Your task to perform on an android device: Search for 3d printed chess sets on Etsy. Image 0: 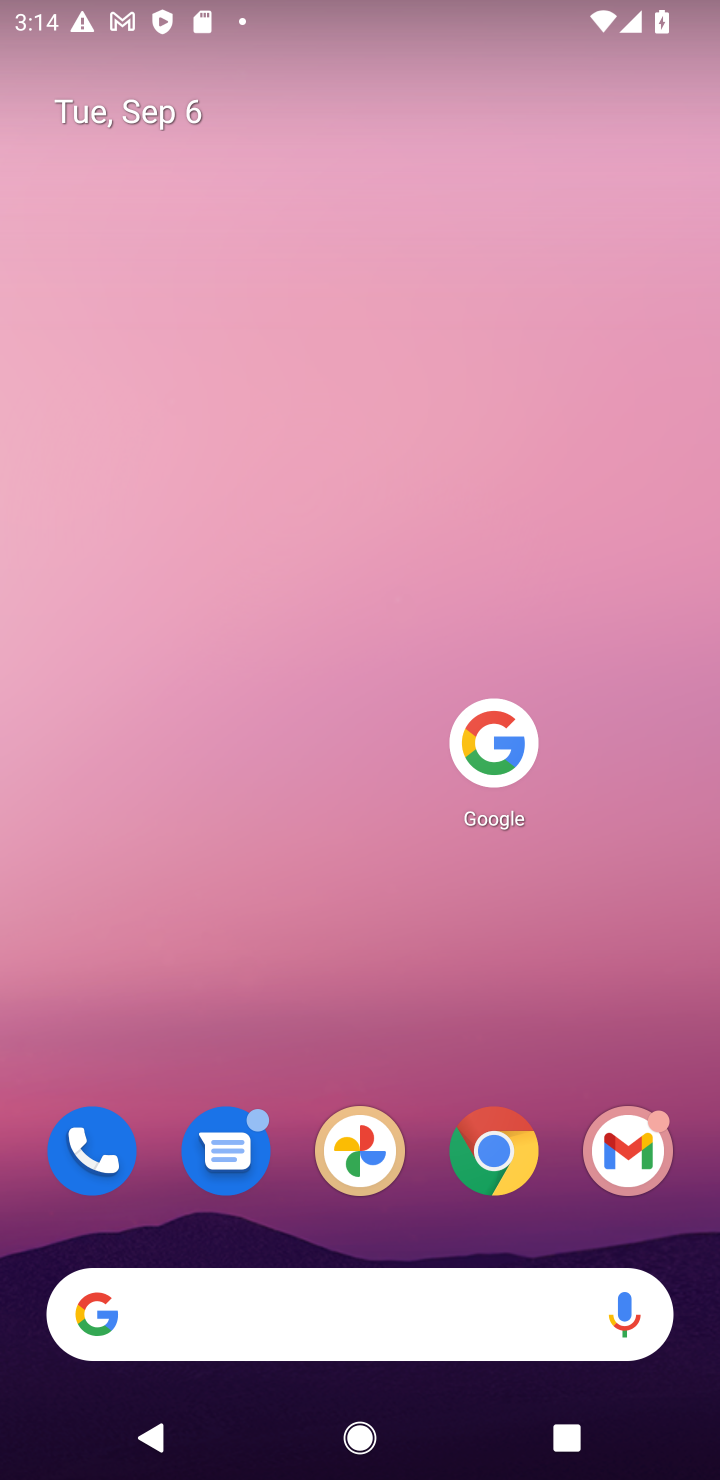
Step 0: click (491, 727)
Your task to perform on an android device: Search for 3d printed chess sets on Etsy. Image 1: 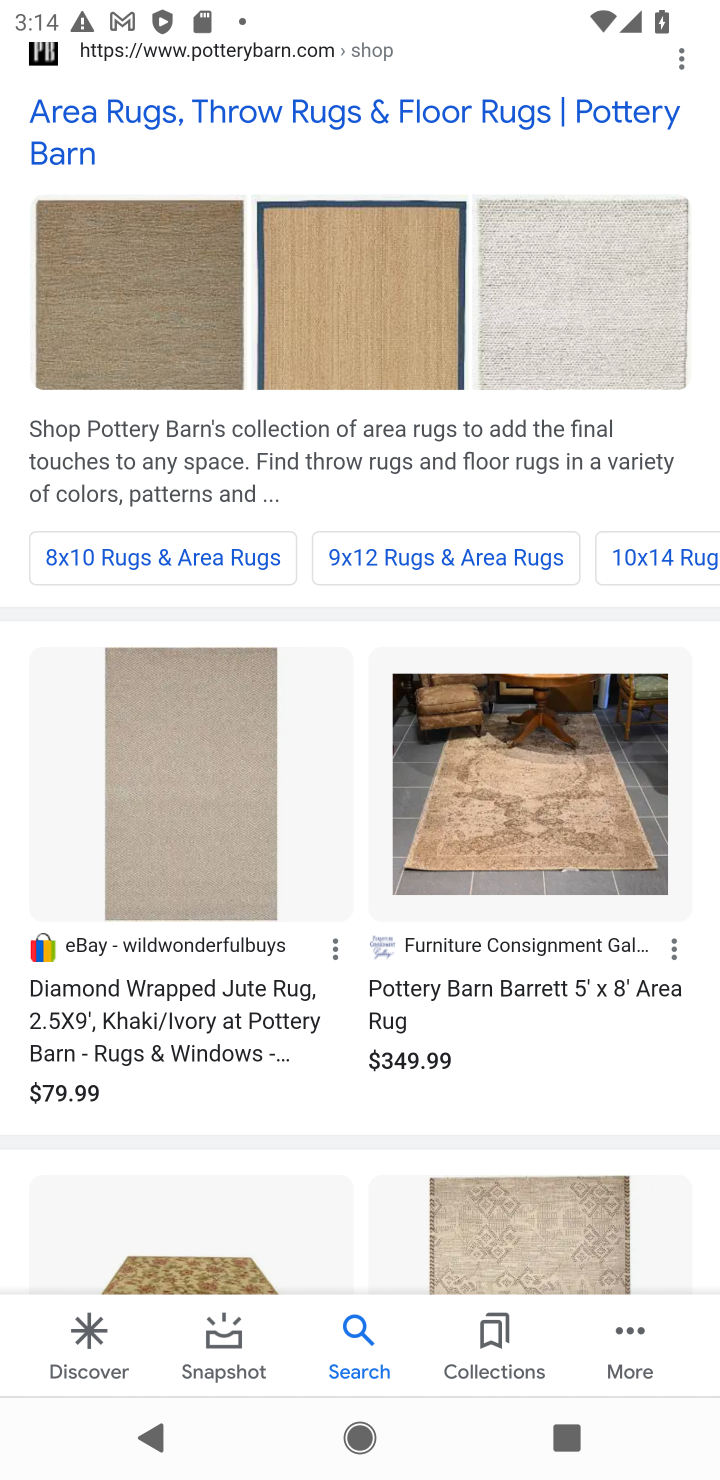
Step 1: drag from (414, 382) to (387, 1108)
Your task to perform on an android device: Search for 3d printed chess sets on Etsy. Image 2: 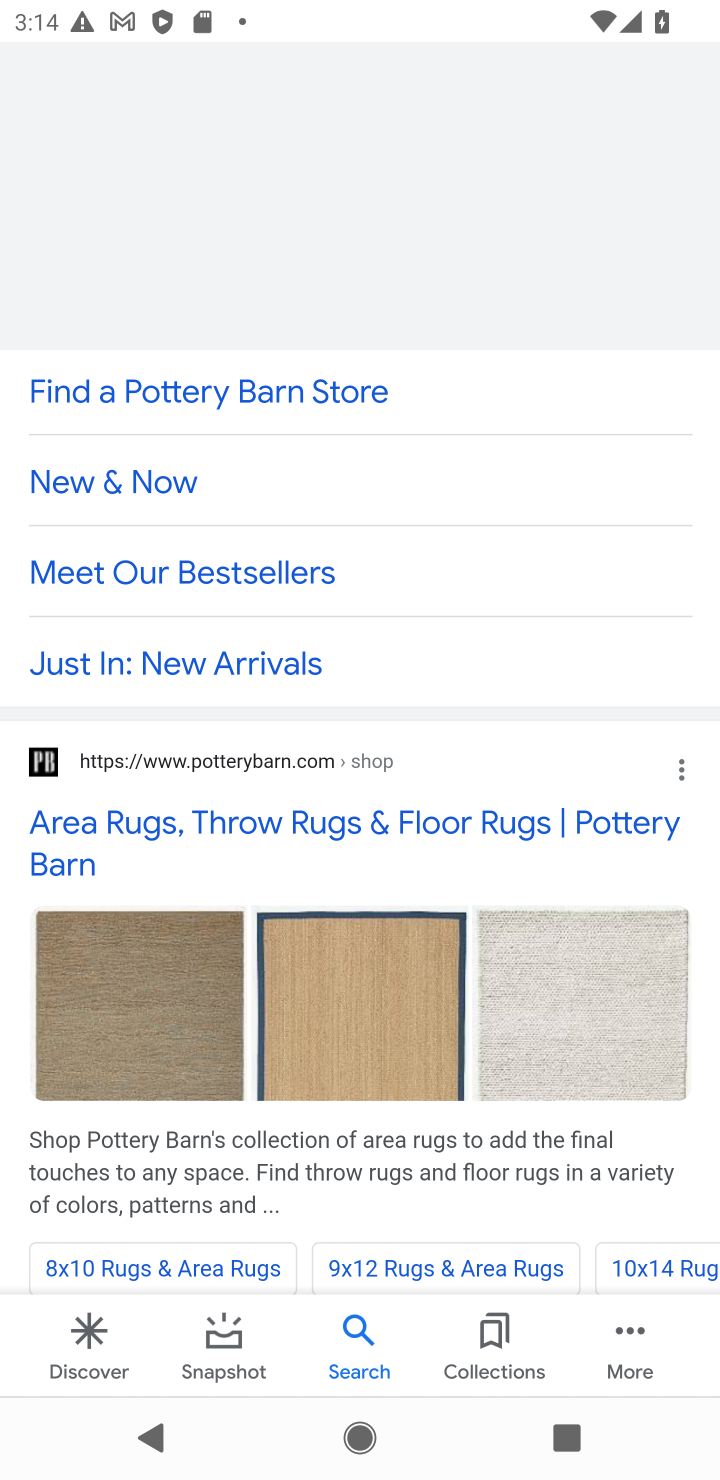
Step 2: drag from (389, 89) to (302, 1185)
Your task to perform on an android device: Search for 3d printed chess sets on Etsy. Image 3: 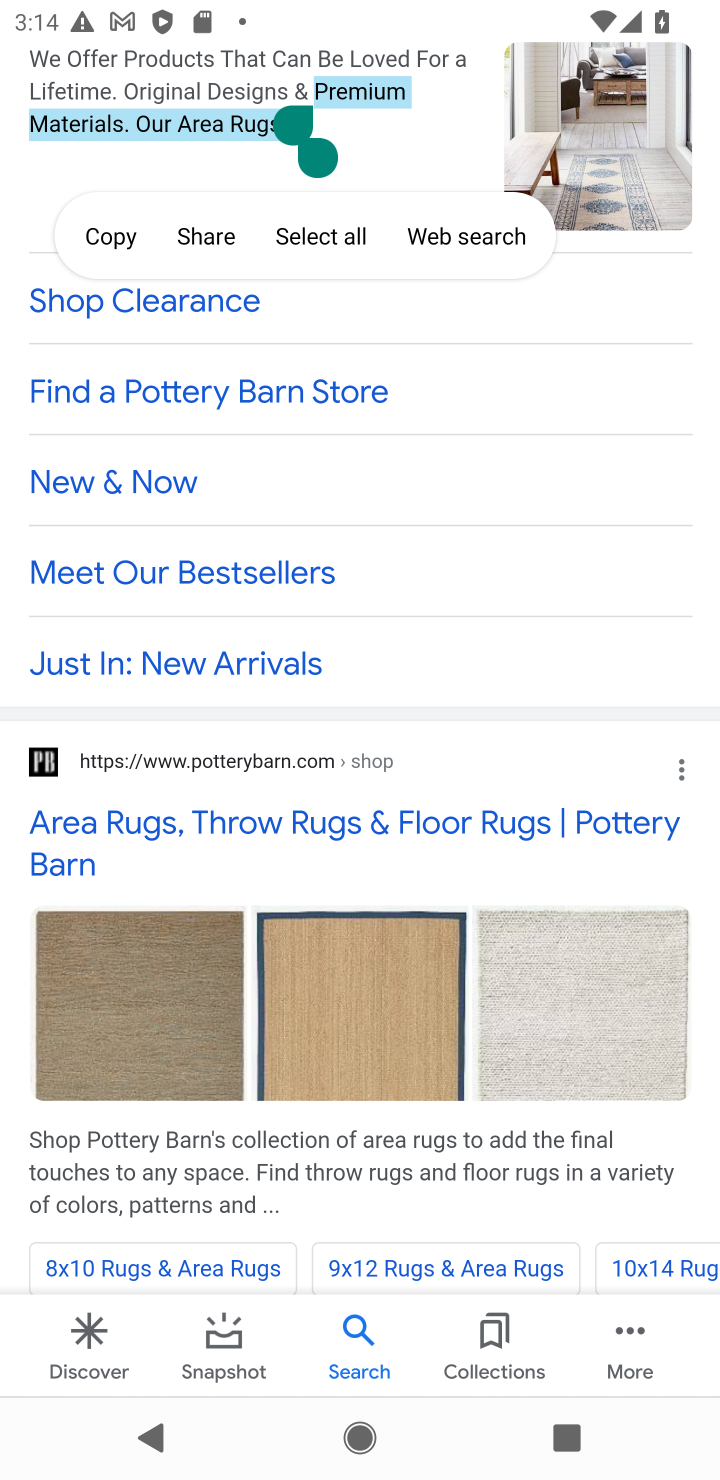
Step 3: click (644, 329)
Your task to perform on an android device: Search for 3d printed chess sets on Etsy. Image 4: 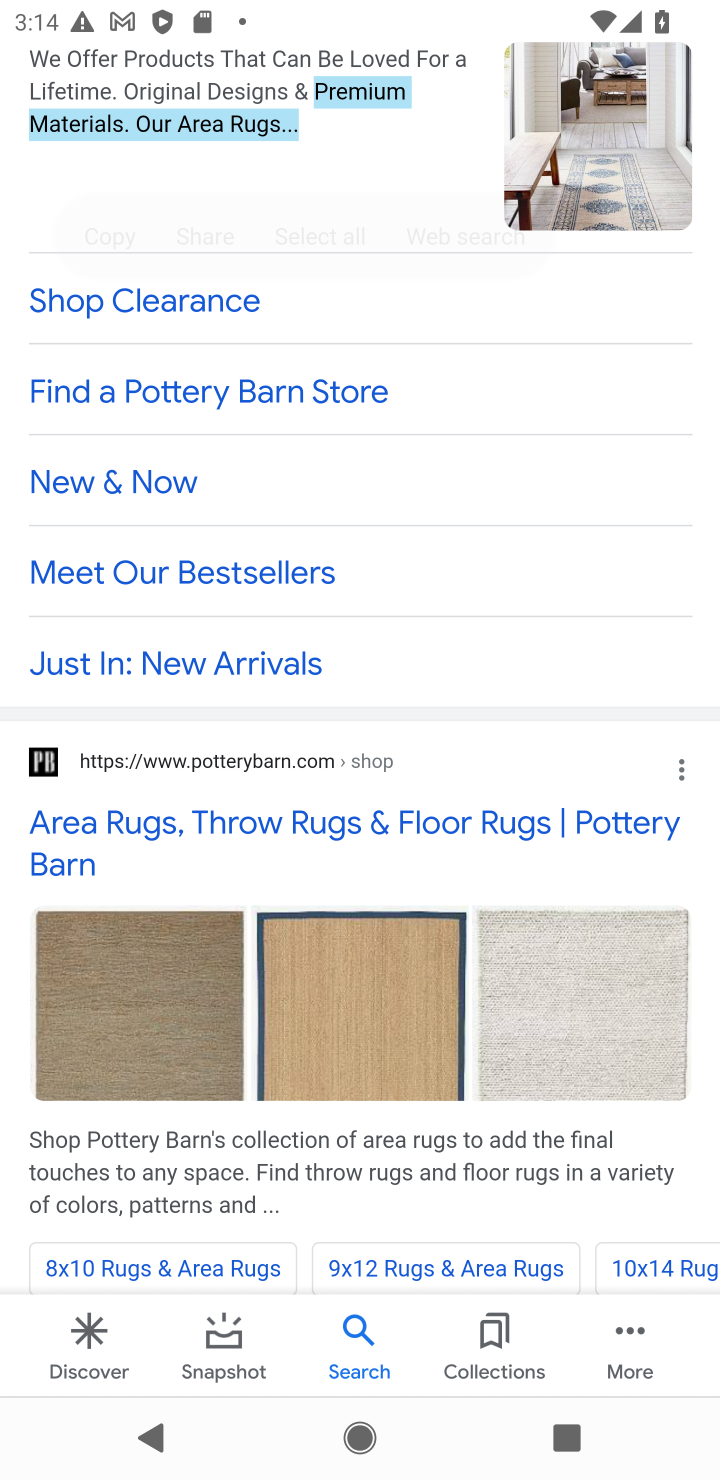
Step 4: drag from (359, 262) to (347, 1414)
Your task to perform on an android device: Search for 3d printed chess sets on Etsy. Image 5: 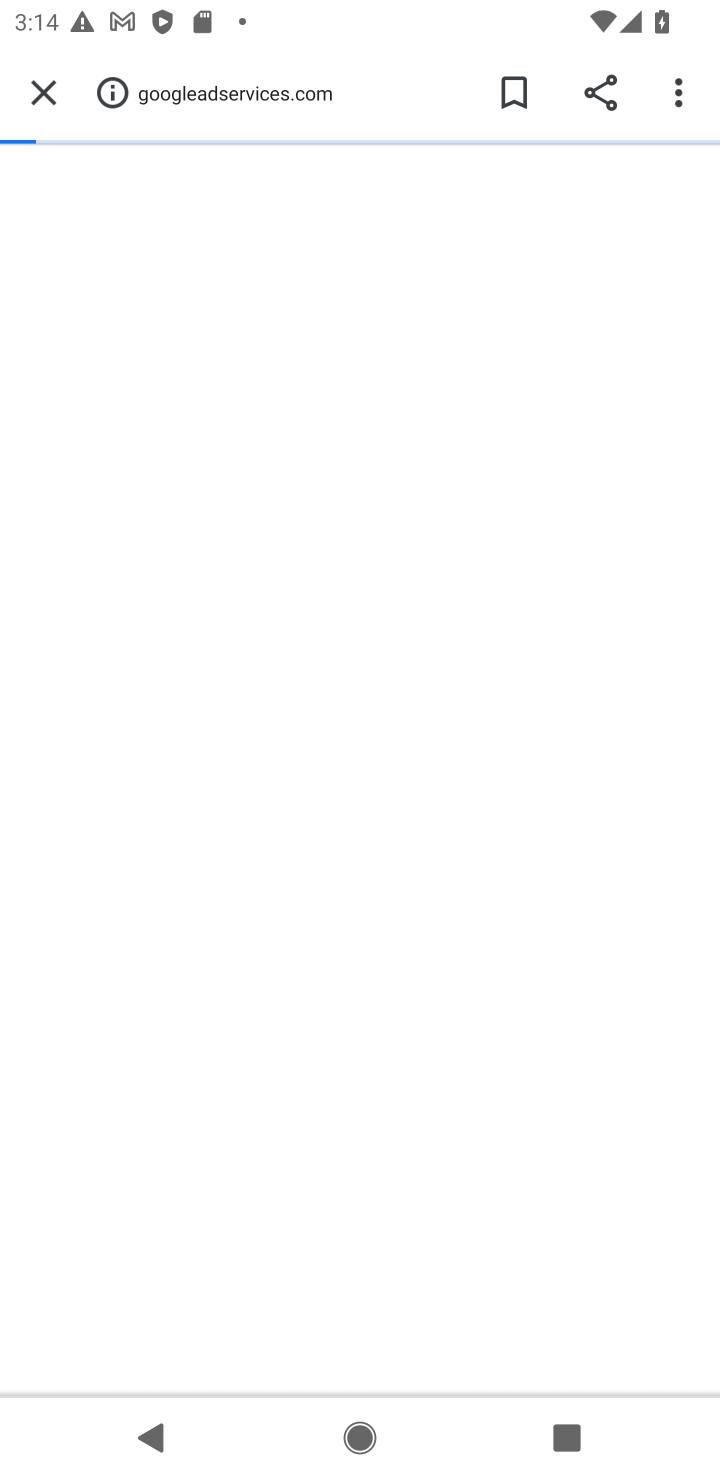
Step 5: click (39, 86)
Your task to perform on an android device: Search for 3d printed chess sets on Etsy. Image 6: 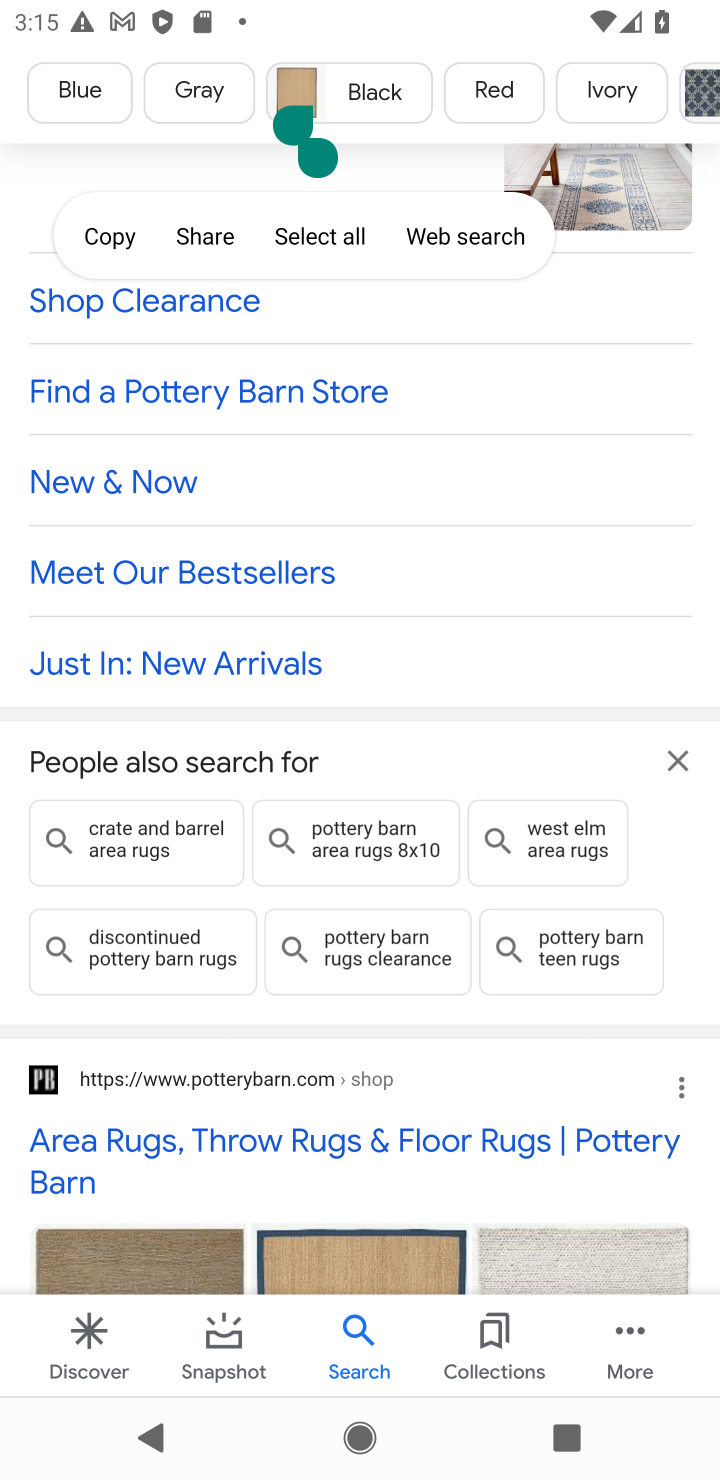
Step 6: drag from (506, 346) to (337, 1354)
Your task to perform on an android device: Search for 3d printed chess sets on Etsy. Image 7: 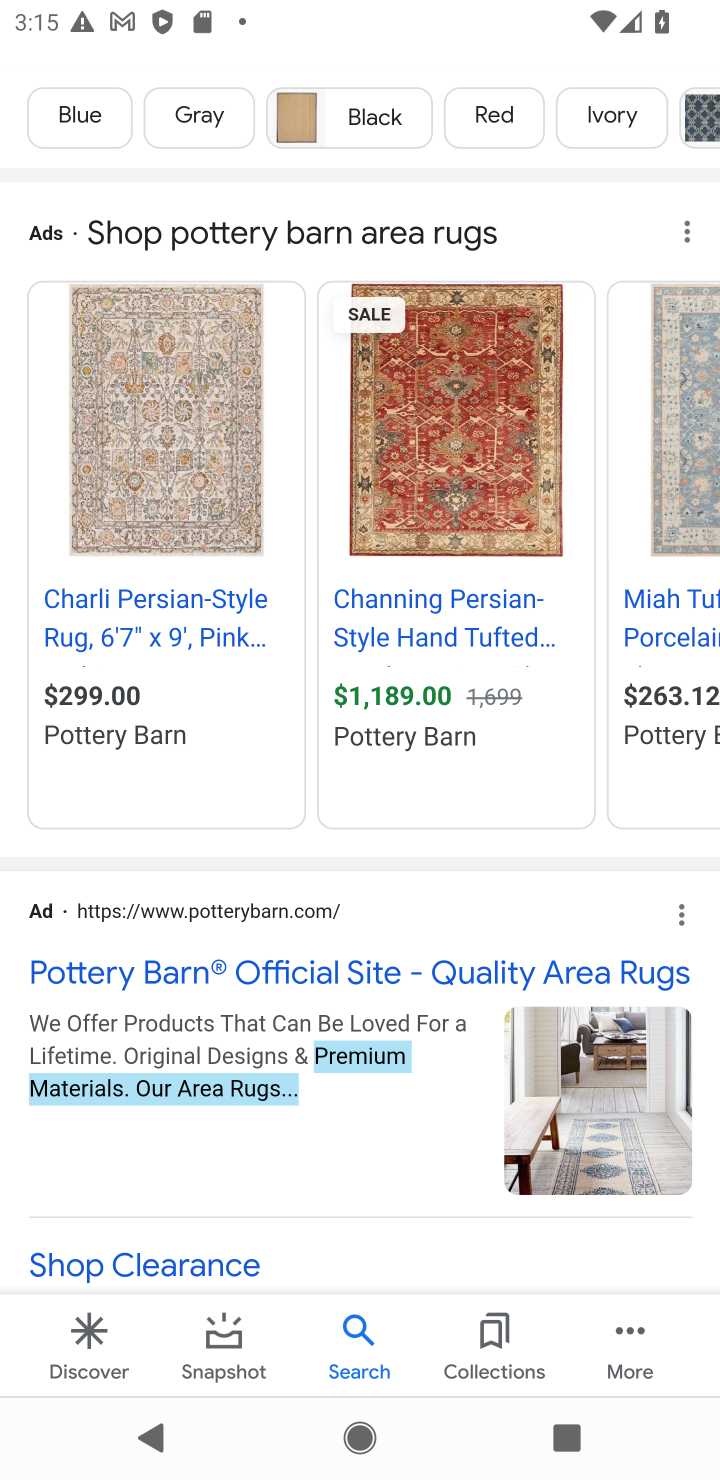
Step 7: click (503, 1300)
Your task to perform on an android device: Search for 3d printed chess sets on Etsy. Image 8: 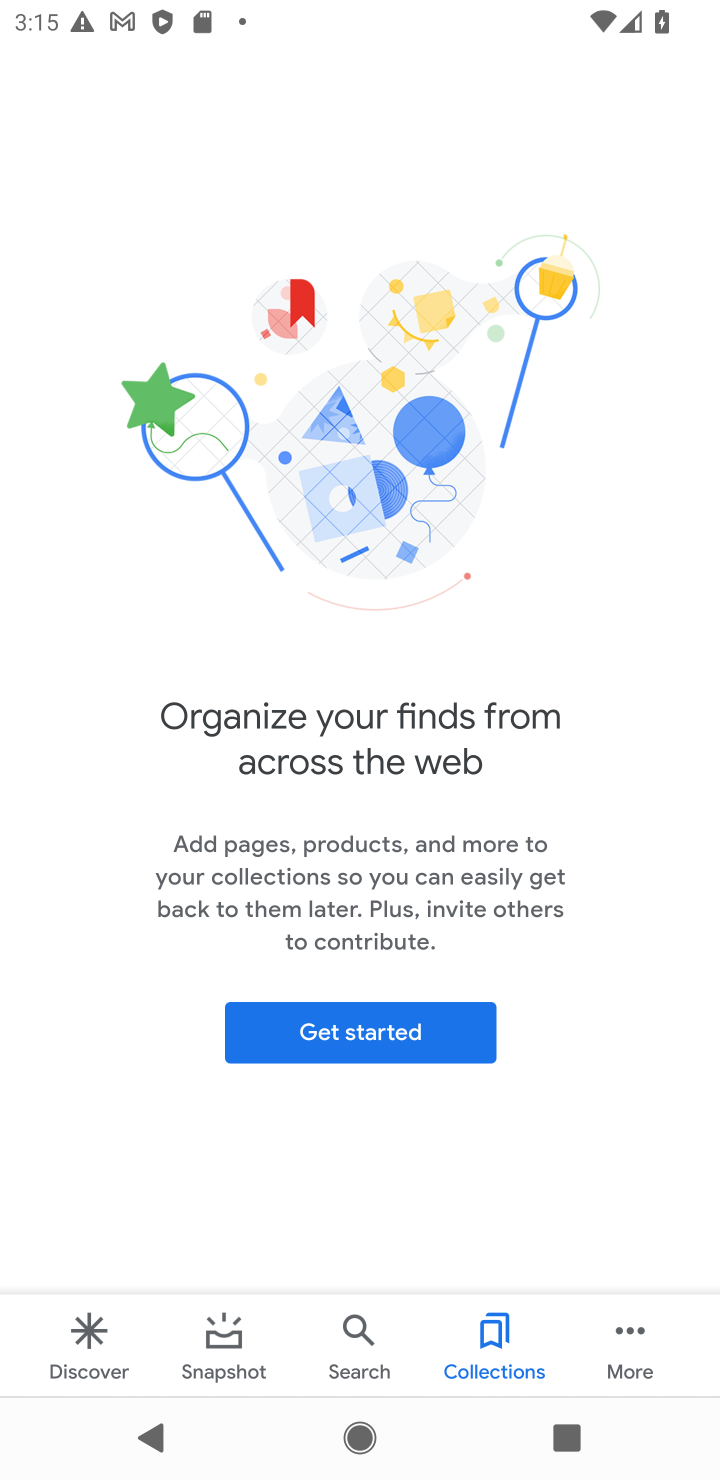
Step 8: press back button
Your task to perform on an android device: Search for 3d printed chess sets on Etsy. Image 9: 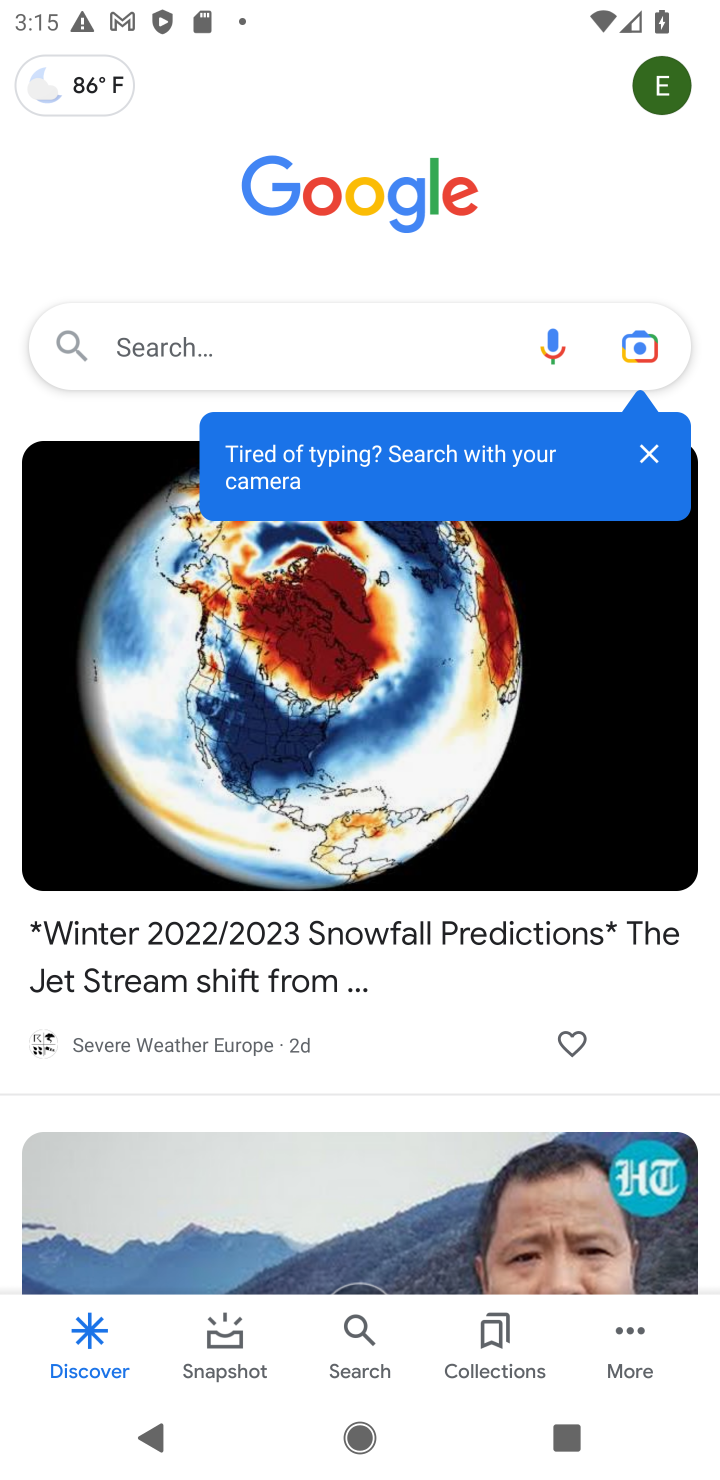
Step 9: click (223, 341)
Your task to perform on an android device: Search for 3d printed chess sets on Etsy. Image 10: 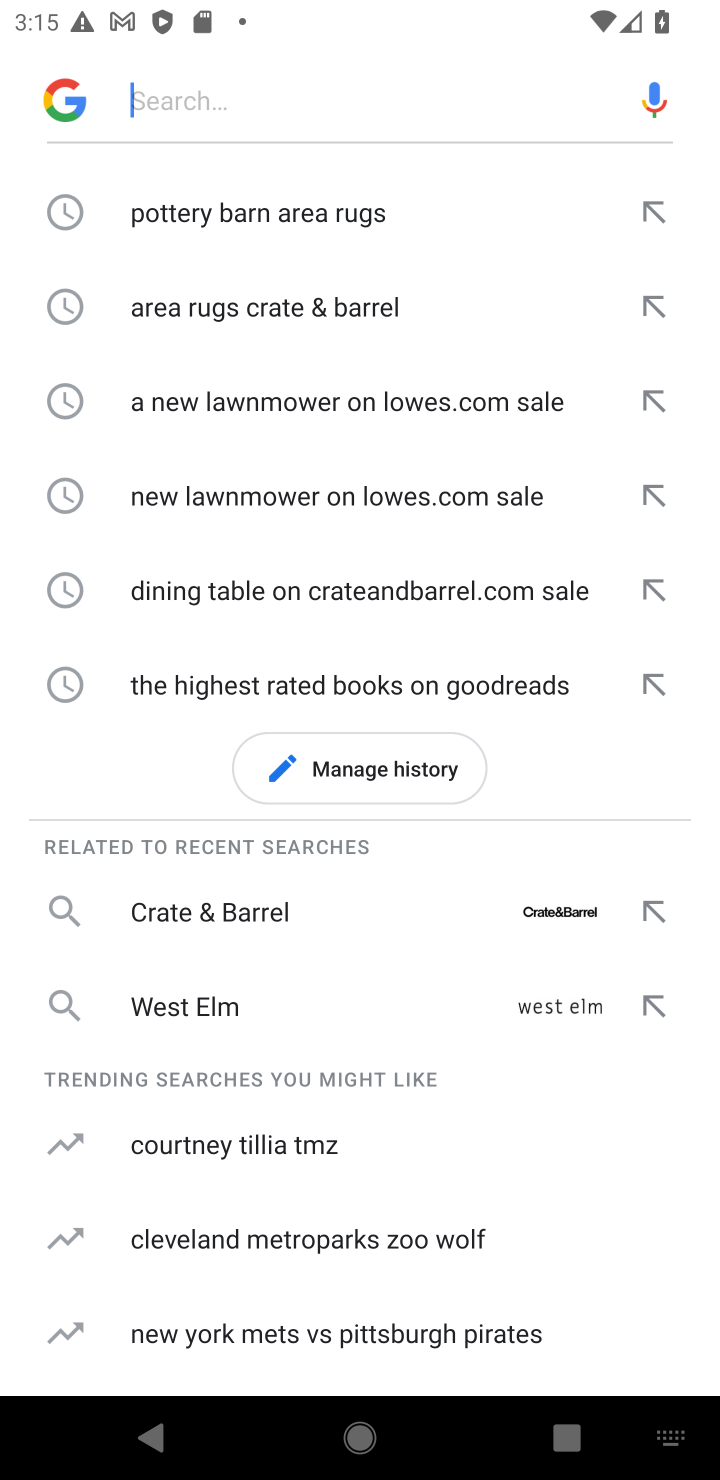
Step 10: type " 3d printed chess sets on Etsy "
Your task to perform on an android device: Search for 3d printed chess sets on Etsy. Image 11: 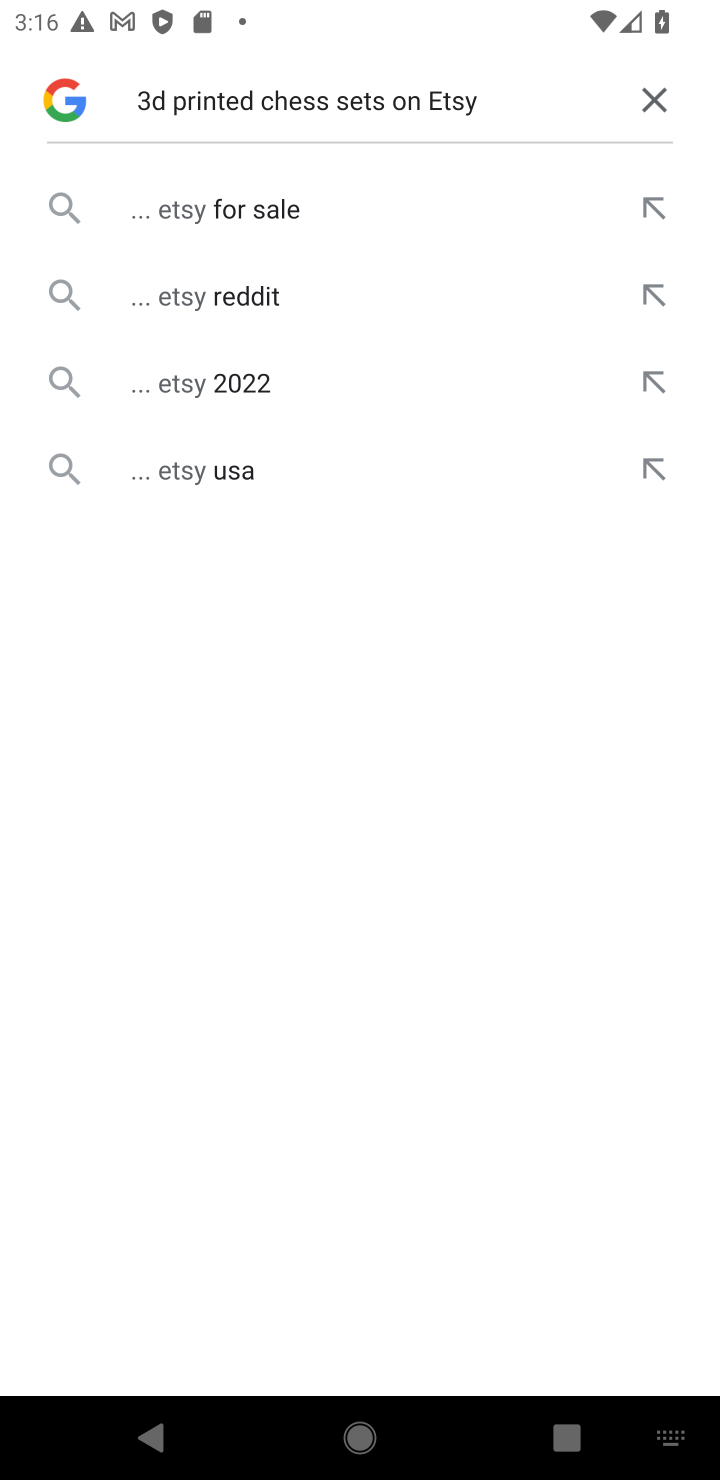
Step 11: click (201, 484)
Your task to perform on an android device: Search for 3d printed chess sets on Etsy. Image 12: 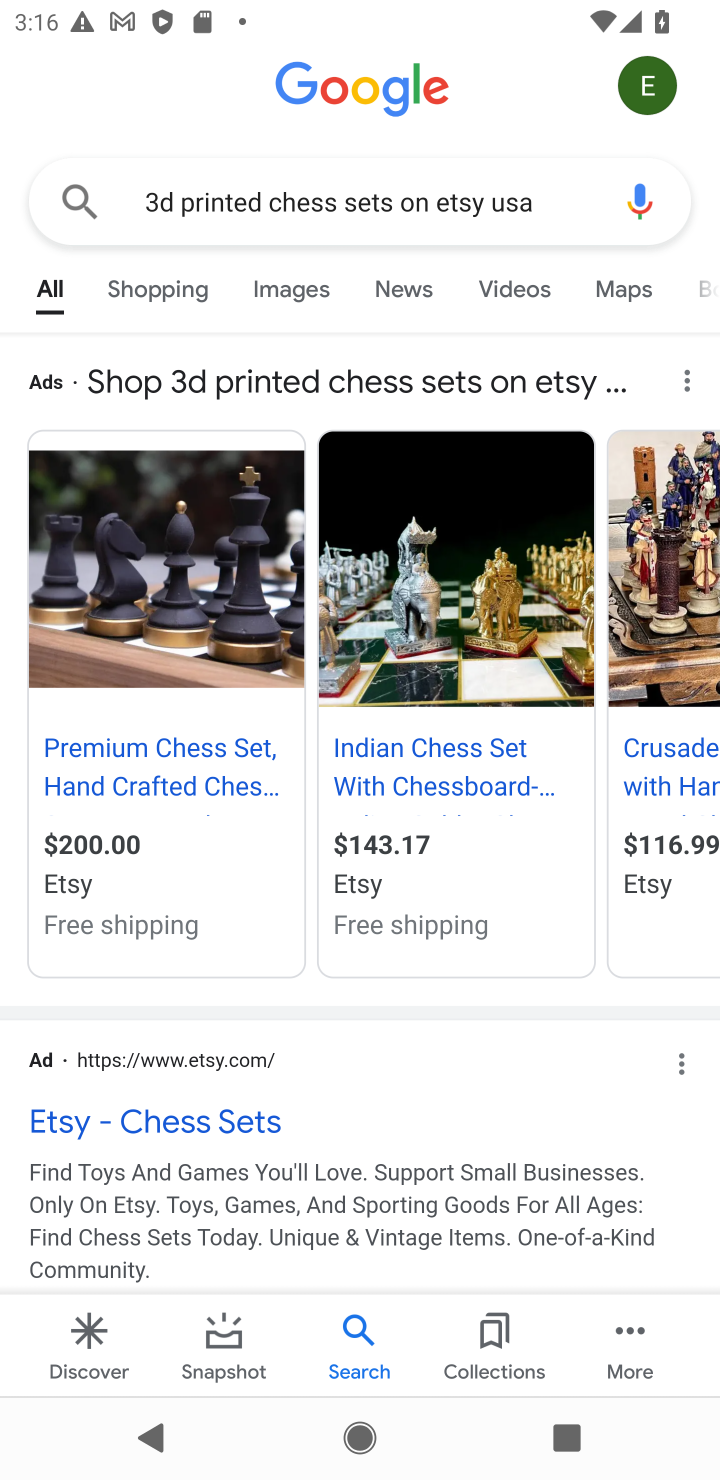
Step 12: drag from (401, 1171) to (501, 419)
Your task to perform on an android device: Search for 3d printed chess sets on Etsy. Image 13: 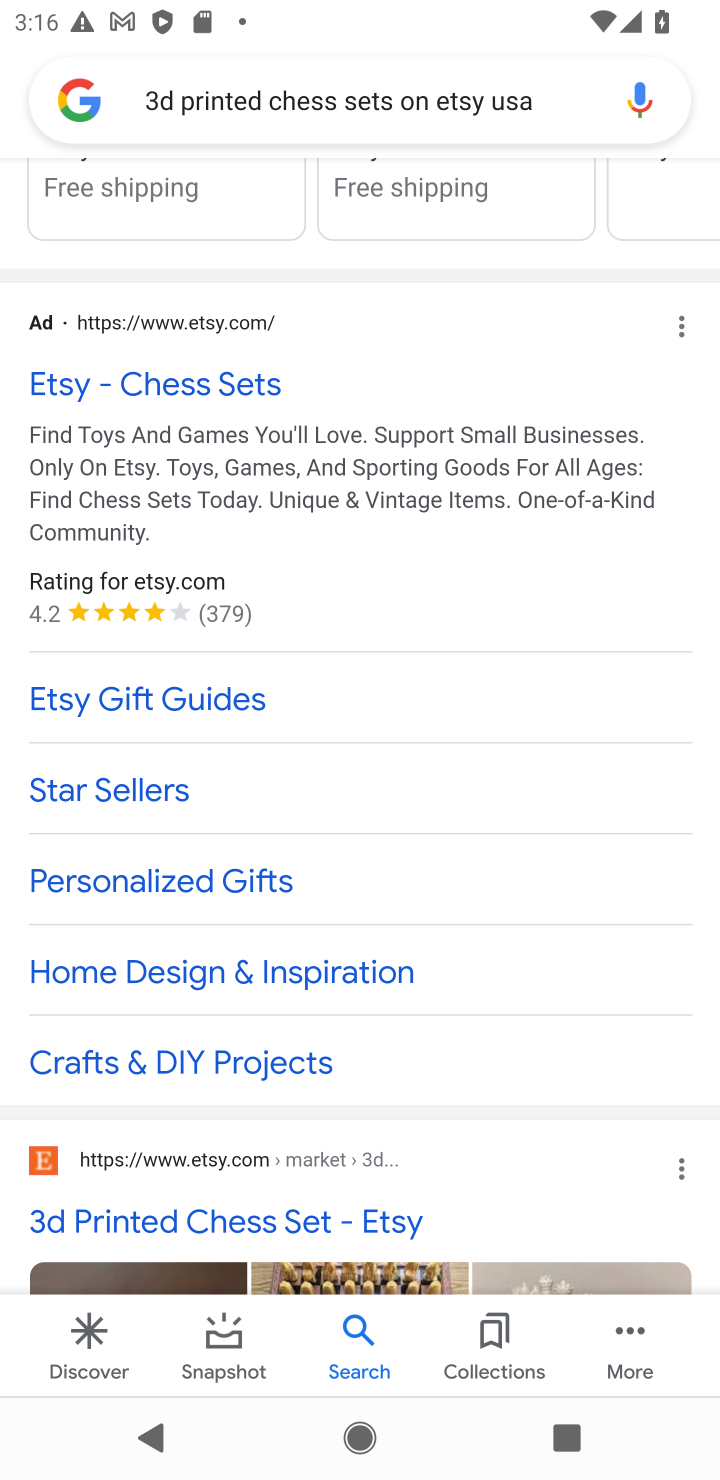
Step 13: click (141, 376)
Your task to perform on an android device: Search for 3d printed chess sets on Etsy. Image 14: 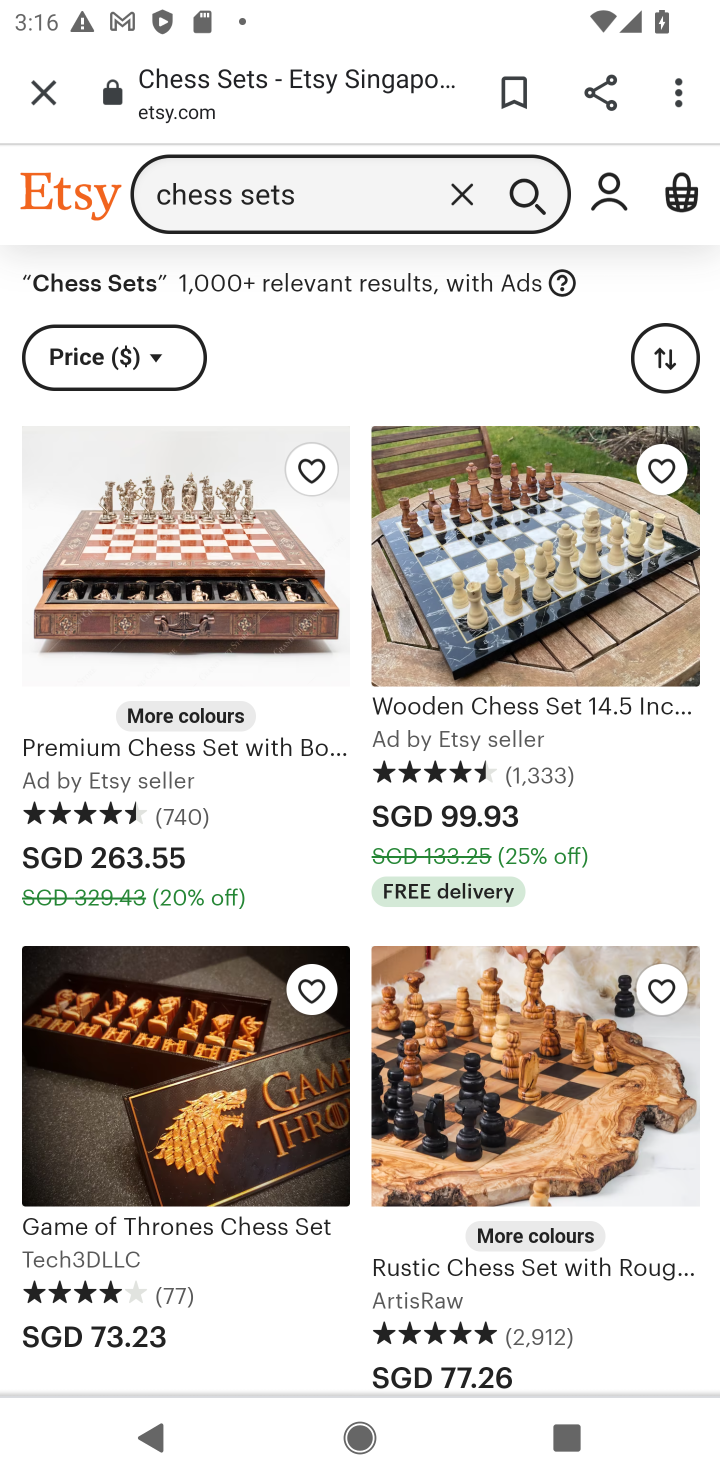
Step 14: task complete